Your task to perform on an android device: Open the calendar app, open the side menu, and click the "Day" option Image 0: 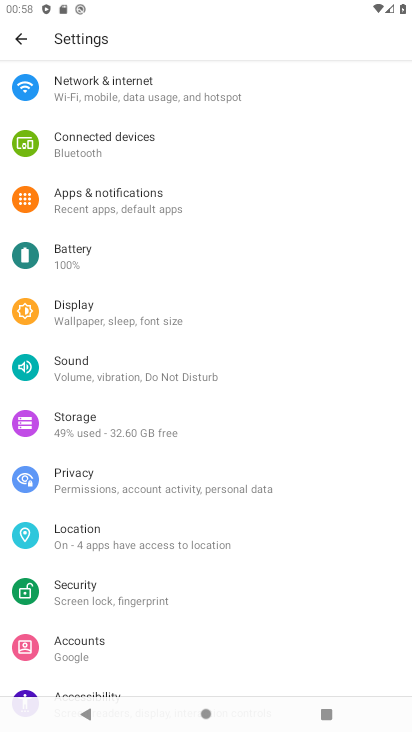
Step 0: press home button
Your task to perform on an android device: Open the calendar app, open the side menu, and click the "Day" option Image 1: 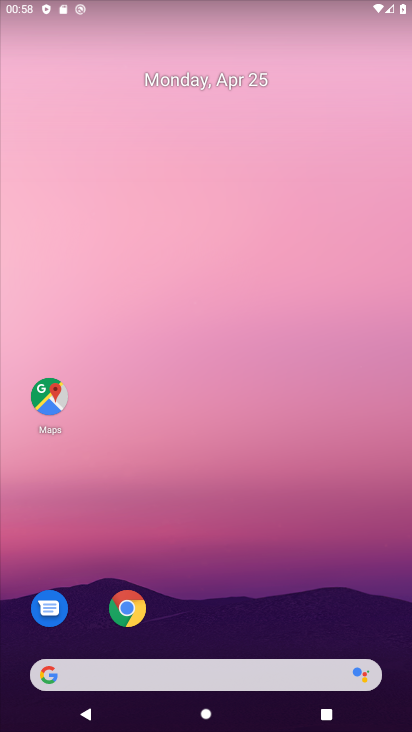
Step 1: drag from (206, 635) to (191, 160)
Your task to perform on an android device: Open the calendar app, open the side menu, and click the "Day" option Image 2: 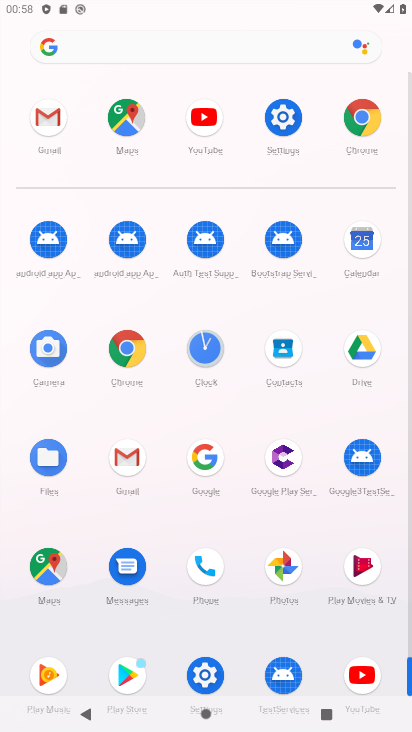
Step 2: click (357, 250)
Your task to perform on an android device: Open the calendar app, open the side menu, and click the "Day" option Image 3: 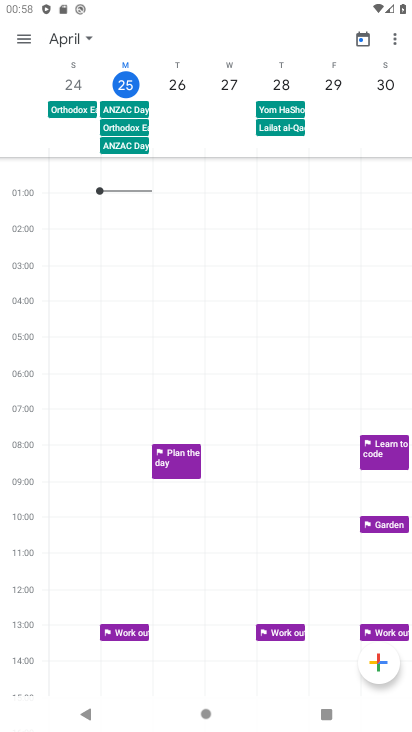
Step 3: click (23, 35)
Your task to perform on an android device: Open the calendar app, open the side menu, and click the "Day" option Image 4: 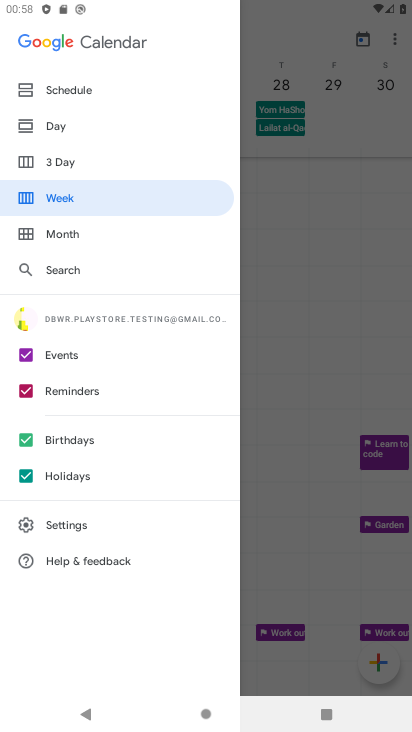
Step 4: click (69, 123)
Your task to perform on an android device: Open the calendar app, open the side menu, and click the "Day" option Image 5: 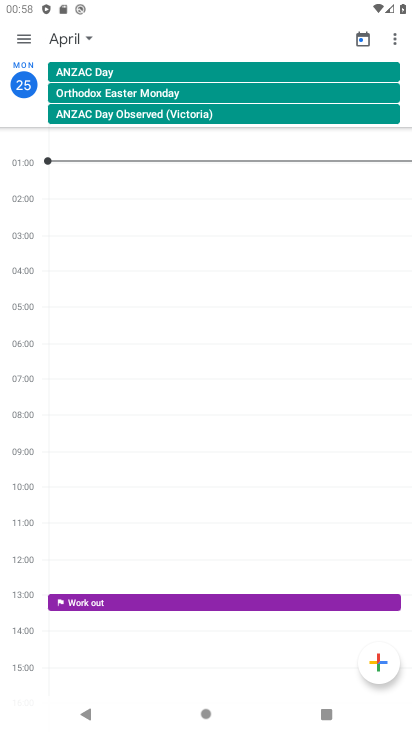
Step 5: task complete